Your task to perform on an android device: see sites visited before in the chrome app Image 0: 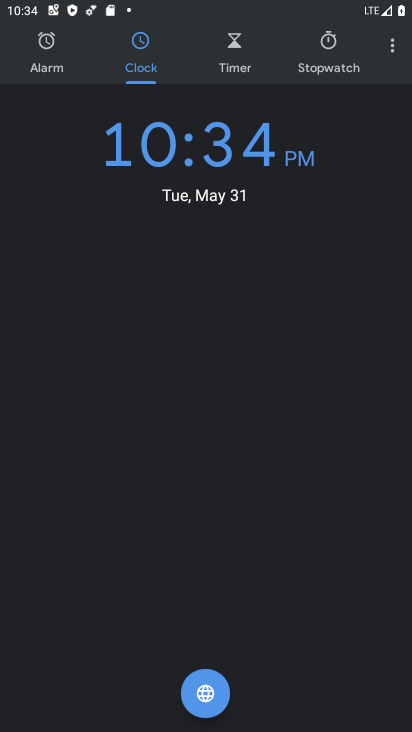
Step 0: press home button
Your task to perform on an android device: see sites visited before in the chrome app Image 1: 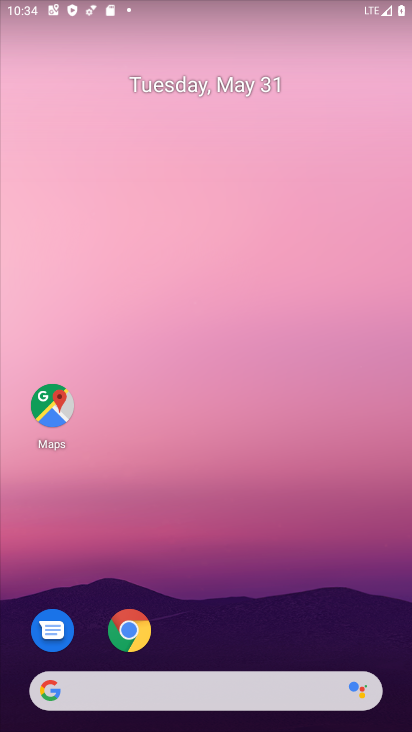
Step 1: click (125, 639)
Your task to perform on an android device: see sites visited before in the chrome app Image 2: 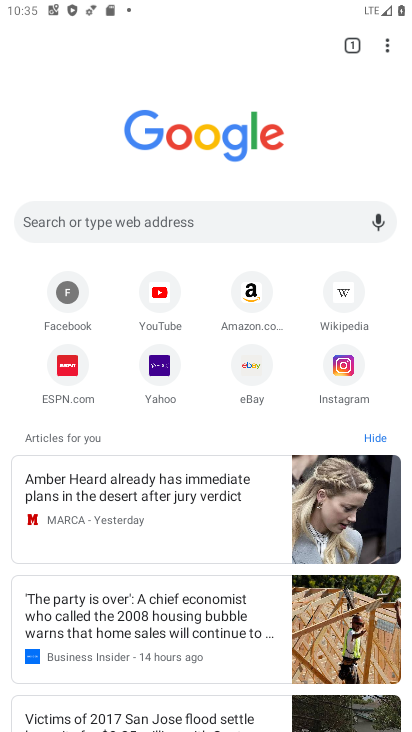
Step 2: drag from (389, 49) to (262, 216)
Your task to perform on an android device: see sites visited before in the chrome app Image 3: 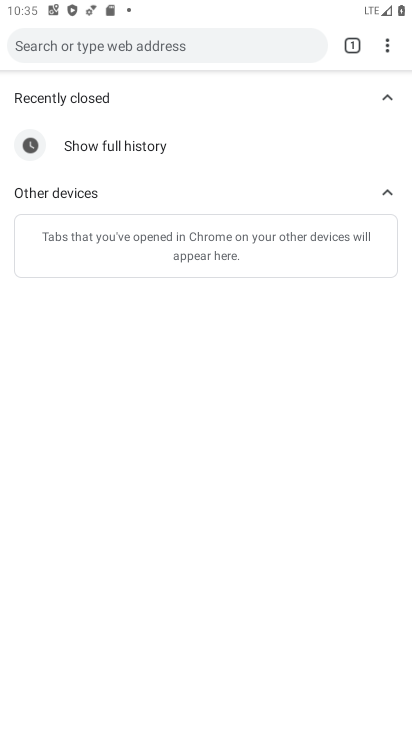
Step 3: click (124, 147)
Your task to perform on an android device: see sites visited before in the chrome app Image 4: 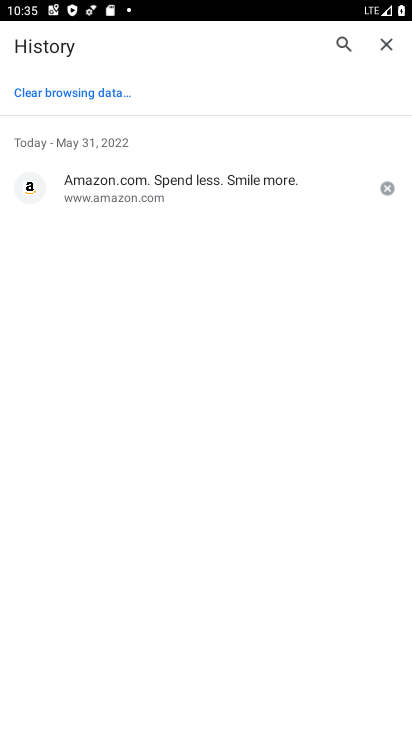
Step 4: task complete